Your task to perform on an android device: open device folders in google photos Image 0: 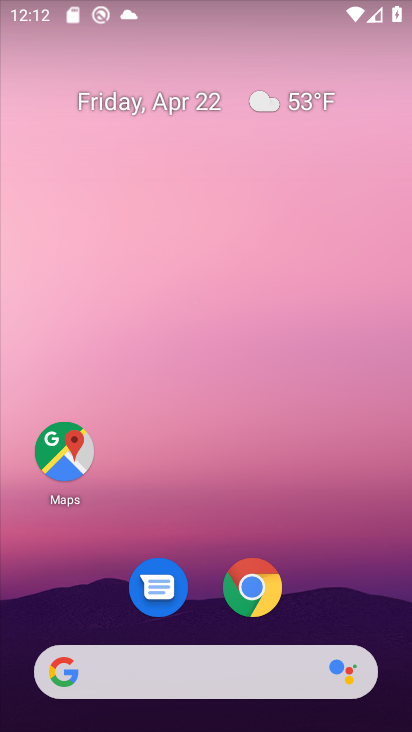
Step 0: drag from (331, 520) to (309, 170)
Your task to perform on an android device: open device folders in google photos Image 1: 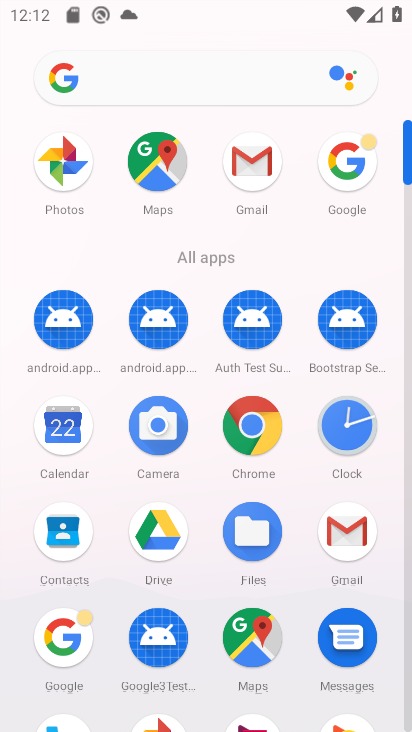
Step 1: click (245, 182)
Your task to perform on an android device: open device folders in google photos Image 2: 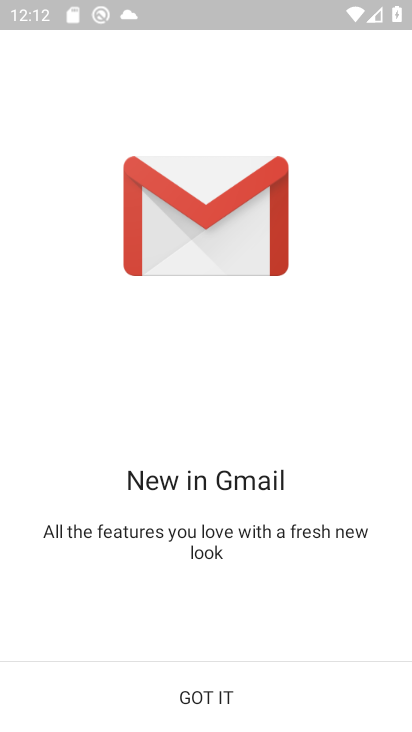
Step 2: click (209, 704)
Your task to perform on an android device: open device folders in google photos Image 3: 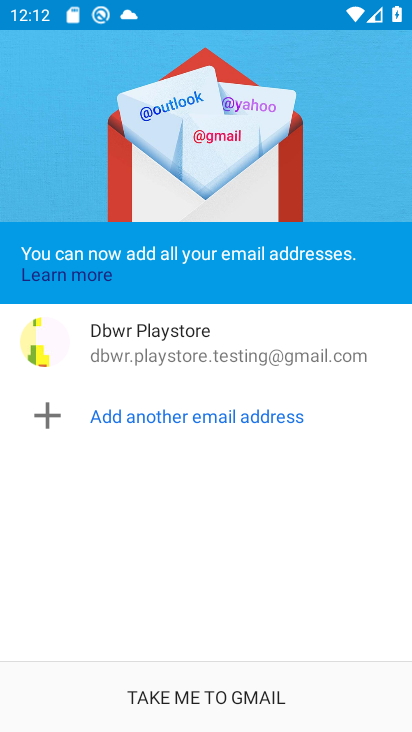
Step 3: click (209, 704)
Your task to perform on an android device: open device folders in google photos Image 4: 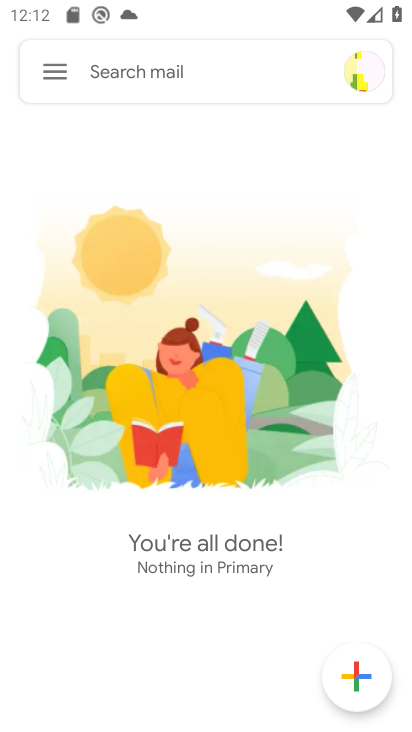
Step 4: click (55, 75)
Your task to perform on an android device: open device folders in google photos Image 5: 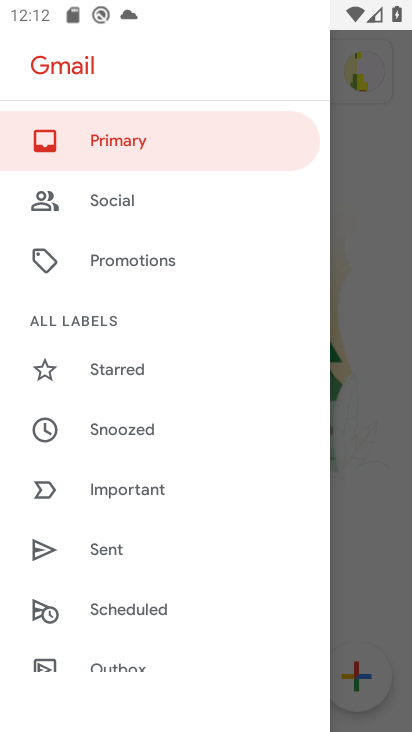
Step 5: press home button
Your task to perform on an android device: open device folders in google photos Image 6: 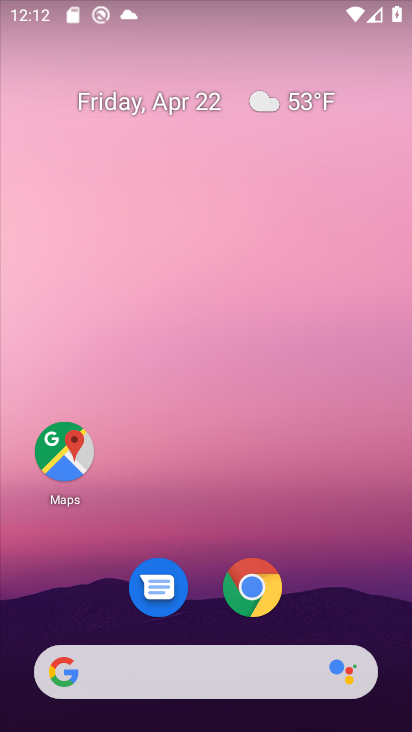
Step 6: drag from (245, 497) to (257, 144)
Your task to perform on an android device: open device folders in google photos Image 7: 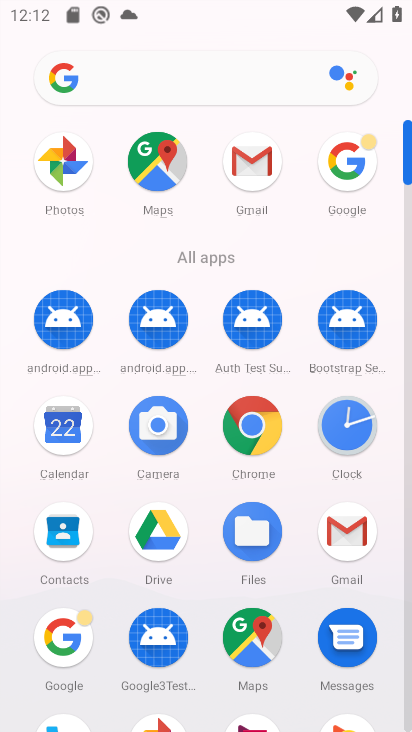
Step 7: drag from (208, 651) to (194, 283)
Your task to perform on an android device: open device folders in google photos Image 8: 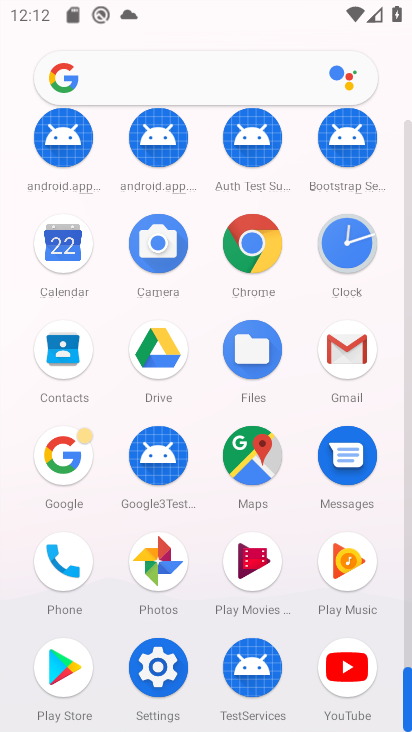
Step 8: click (157, 547)
Your task to perform on an android device: open device folders in google photos Image 9: 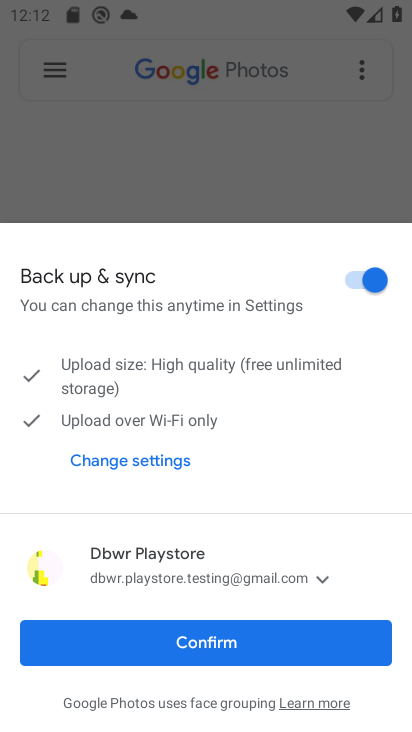
Step 9: click (210, 644)
Your task to perform on an android device: open device folders in google photos Image 10: 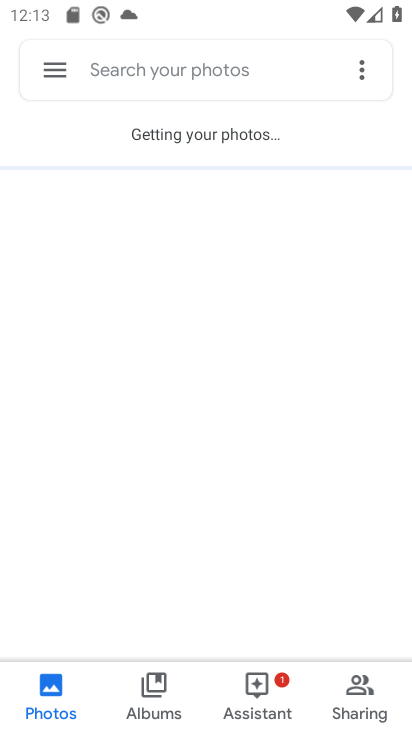
Step 10: click (56, 72)
Your task to perform on an android device: open device folders in google photos Image 11: 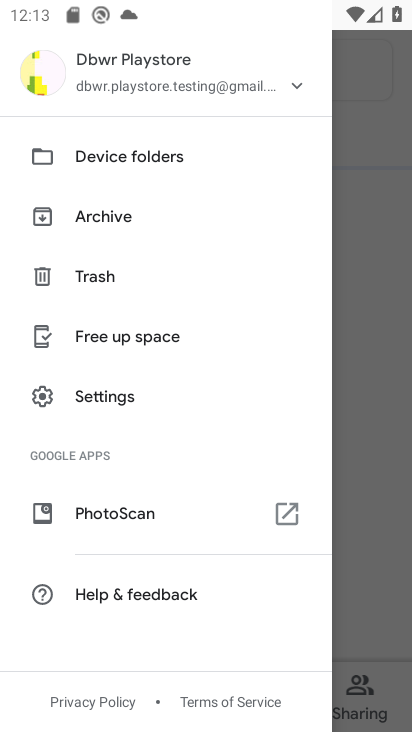
Step 11: click (96, 158)
Your task to perform on an android device: open device folders in google photos Image 12: 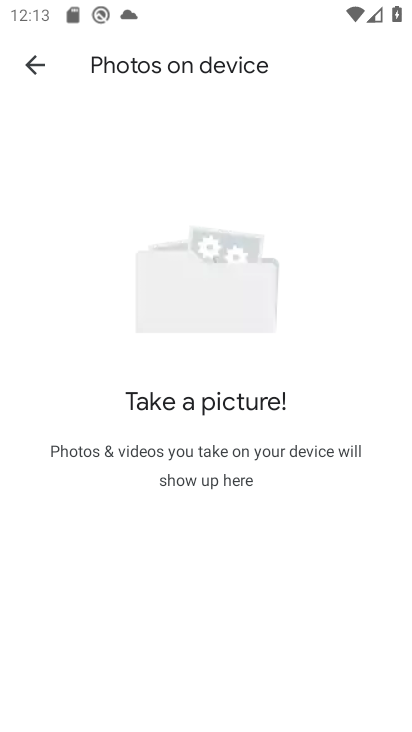
Step 12: task complete